Your task to perform on an android device: turn off notifications settings in the gmail app Image 0: 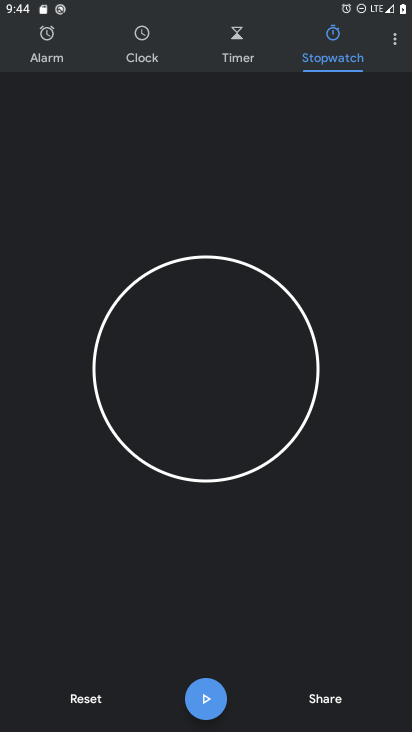
Step 0: press home button
Your task to perform on an android device: turn off notifications settings in the gmail app Image 1: 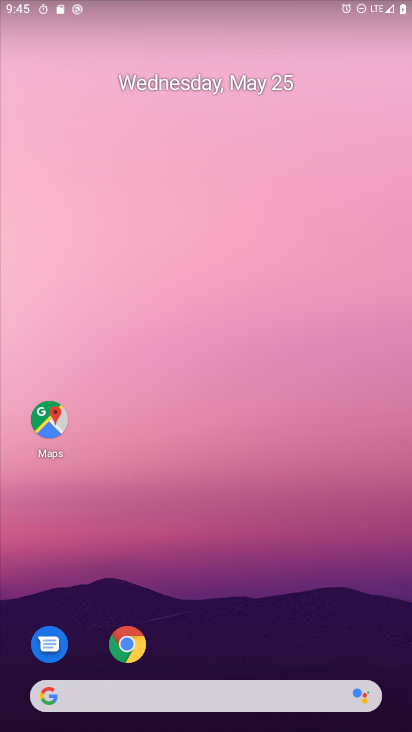
Step 1: press home button
Your task to perform on an android device: turn off notifications settings in the gmail app Image 2: 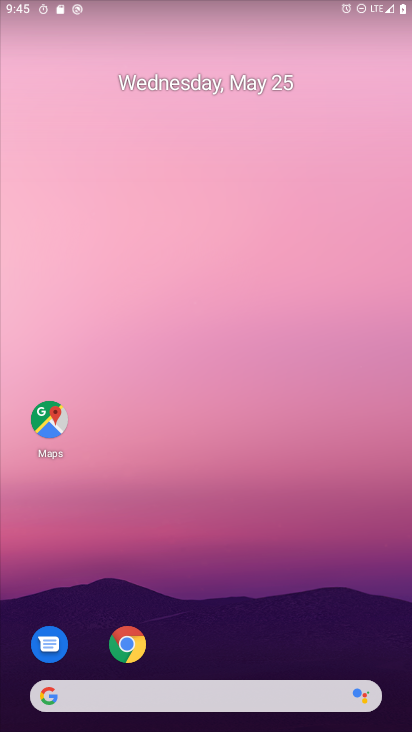
Step 2: press home button
Your task to perform on an android device: turn off notifications settings in the gmail app Image 3: 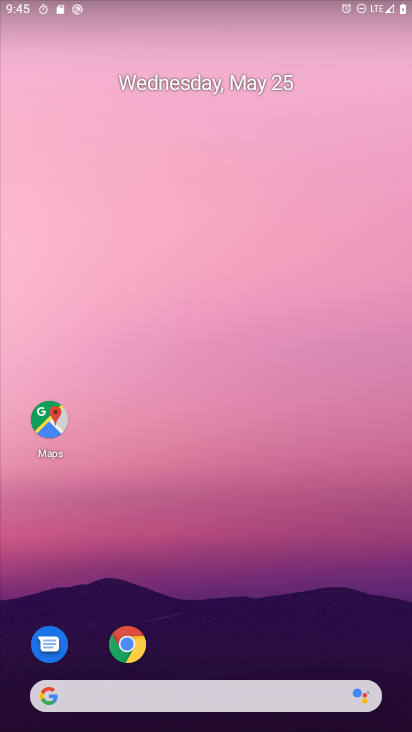
Step 3: drag from (344, 618) to (249, 79)
Your task to perform on an android device: turn off notifications settings in the gmail app Image 4: 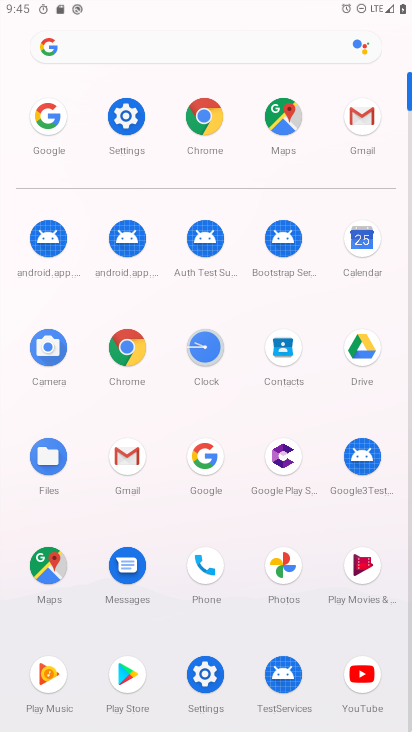
Step 4: click (119, 453)
Your task to perform on an android device: turn off notifications settings in the gmail app Image 5: 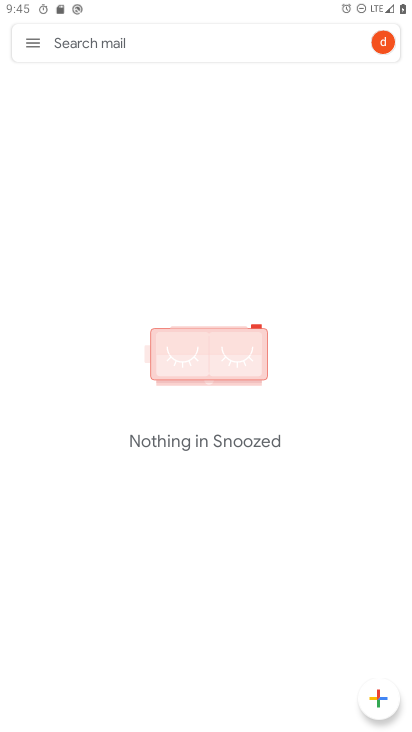
Step 5: click (29, 47)
Your task to perform on an android device: turn off notifications settings in the gmail app Image 6: 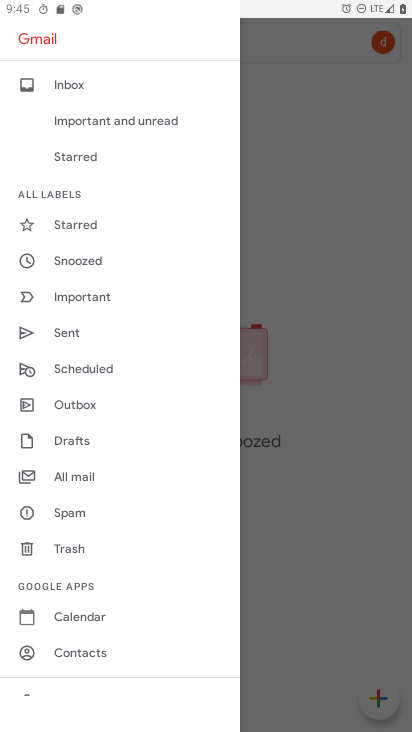
Step 6: drag from (67, 617) to (105, 80)
Your task to perform on an android device: turn off notifications settings in the gmail app Image 7: 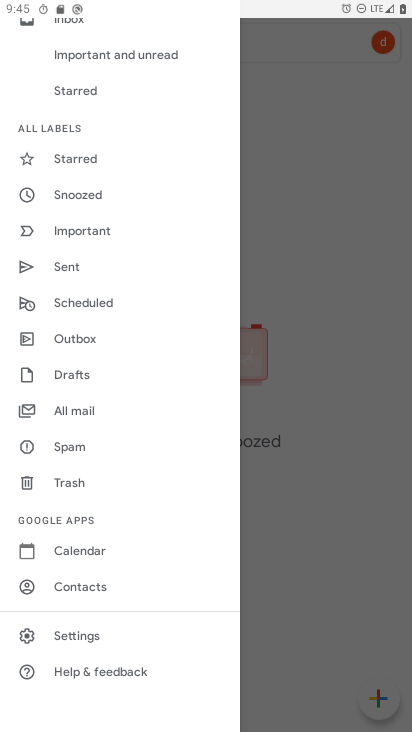
Step 7: click (94, 649)
Your task to perform on an android device: turn off notifications settings in the gmail app Image 8: 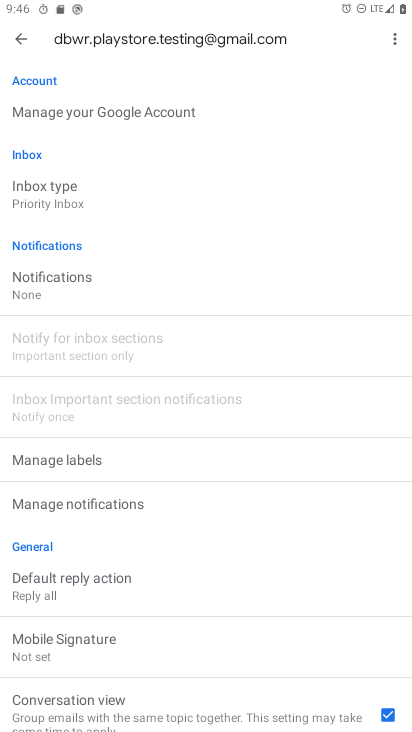
Step 8: task complete